Your task to perform on an android device: add a label to a message in the gmail app Image 0: 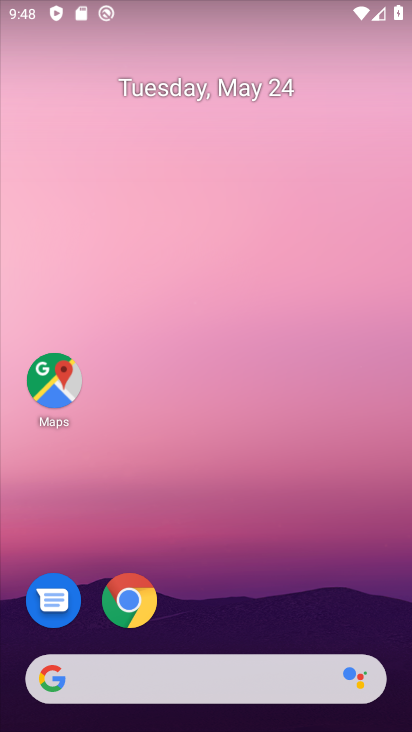
Step 0: drag from (204, 621) to (214, 32)
Your task to perform on an android device: add a label to a message in the gmail app Image 1: 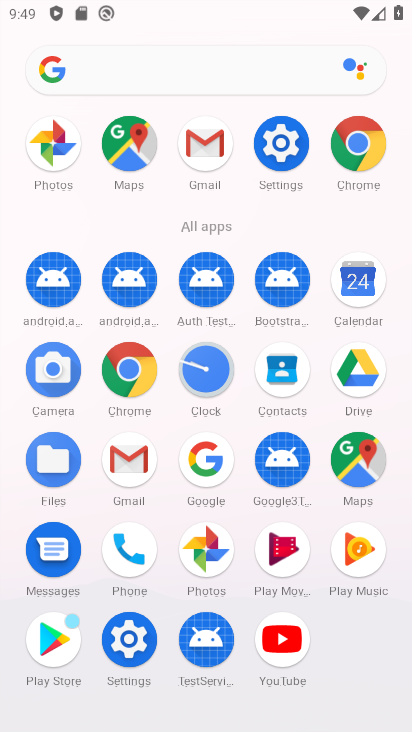
Step 1: click (201, 184)
Your task to perform on an android device: add a label to a message in the gmail app Image 2: 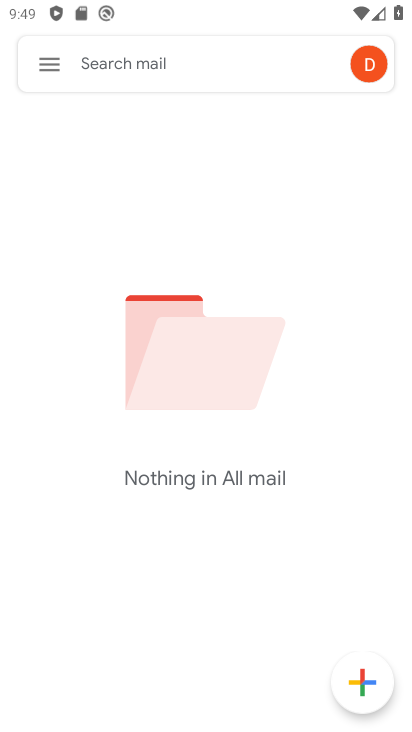
Step 2: click (40, 65)
Your task to perform on an android device: add a label to a message in the gmail app Image 3: 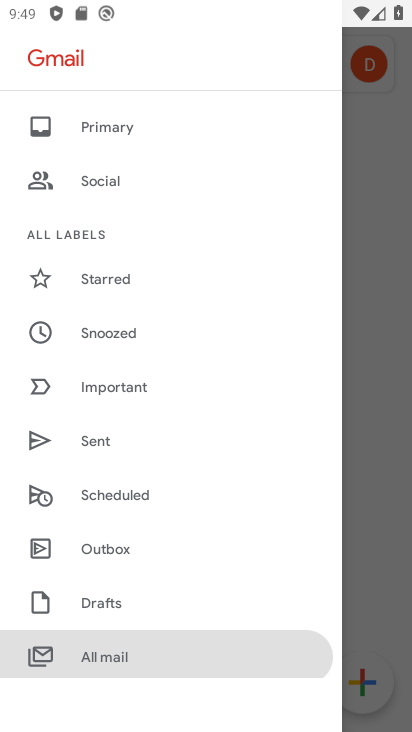
Step 3: task complete